Your task to perform on an android device: change alarm snooze length Image 0: 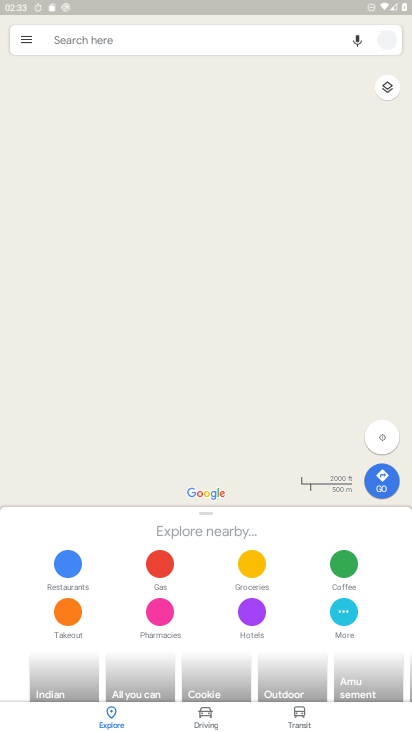
Step 0: press home button
Your task to perform on an android device: change alarm snooze length Image 1: 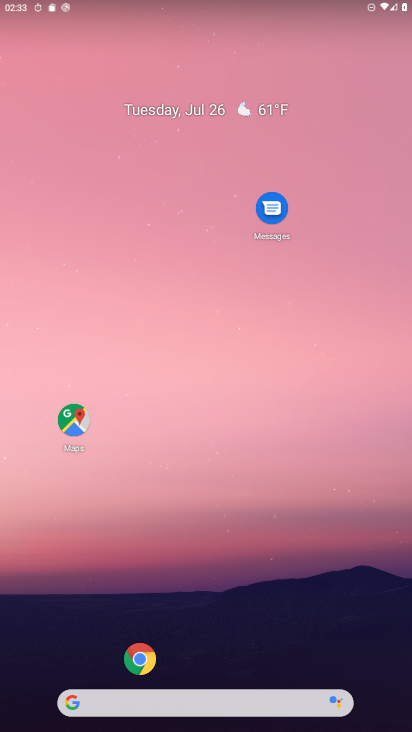
Step 1: drag from (70, 707) to (215, 88)
Your task to perform on an android device: change alarm snooze length Image 2: 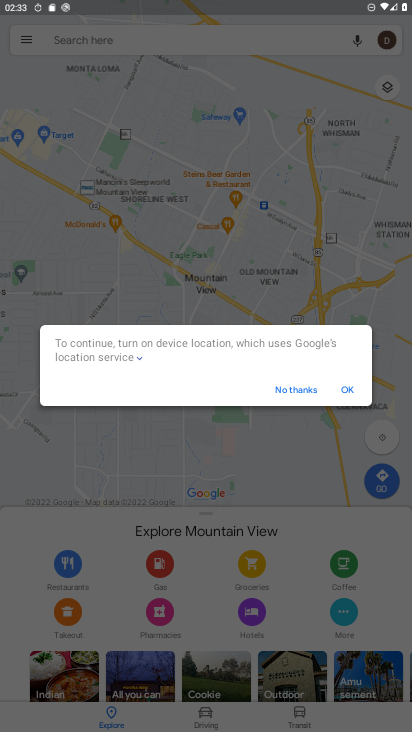
Step 2: press home button
Your task to perform on an android device: change alarm snooze length Image 3: 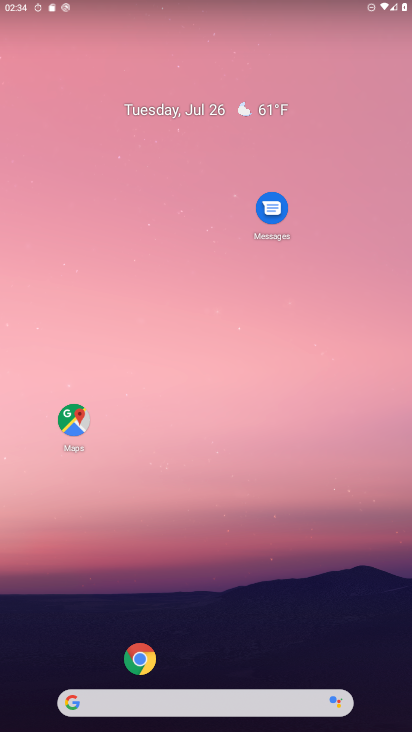
Step 3: drag from (79, 545) to (254, 126)
Your task to perform on an android device: change alarm snooze length Image 4: 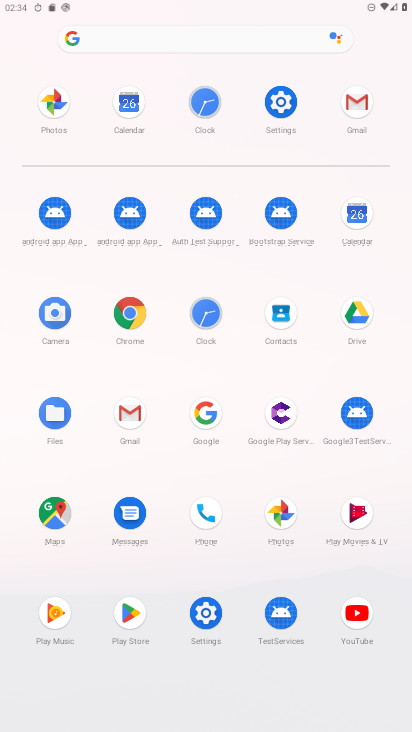
Step 4: click (193, 334)
Your task to perform on an android device: change alarm snooze length Image 5: 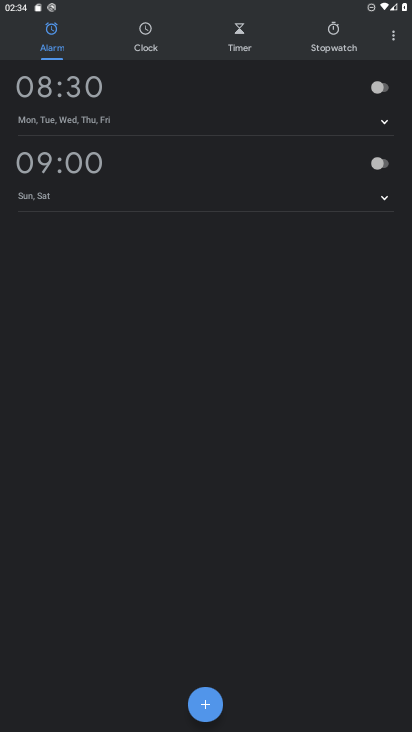
Step 5: click (396, 33)
Your task to perform on an android device: change alarm snooze length Image 6: 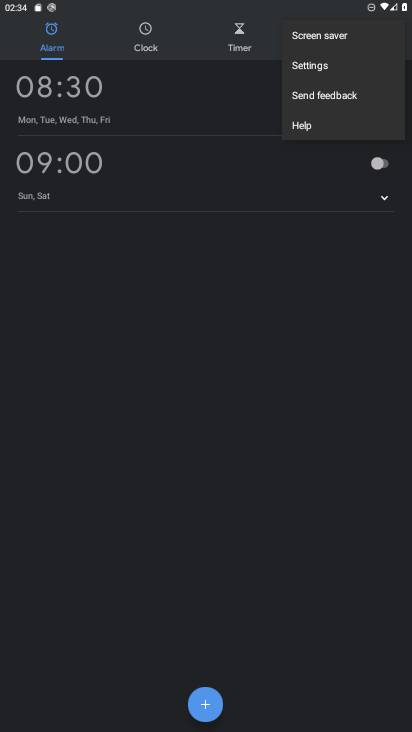
Step 6: click (310, 76)
Your task to perform on an android device: change alarm snooze length Image 7: 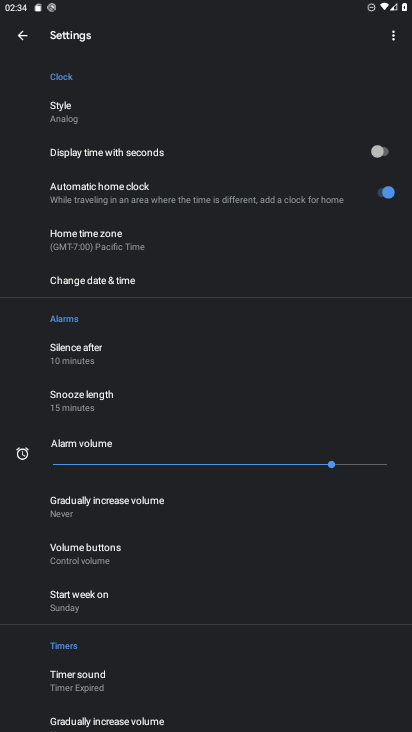
Step 7: click (116, 395)
Your task to perform on an android device: change alarm snooze length Image 8: 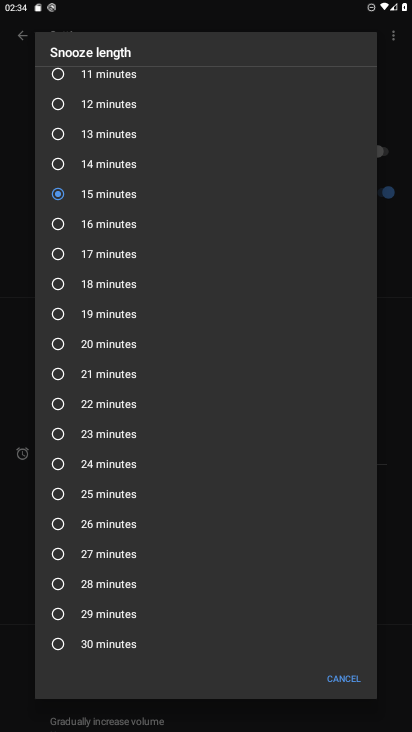
Step 8: click (61, 164)
Your task to perform on an android device: change alarm snooze length Image 9: 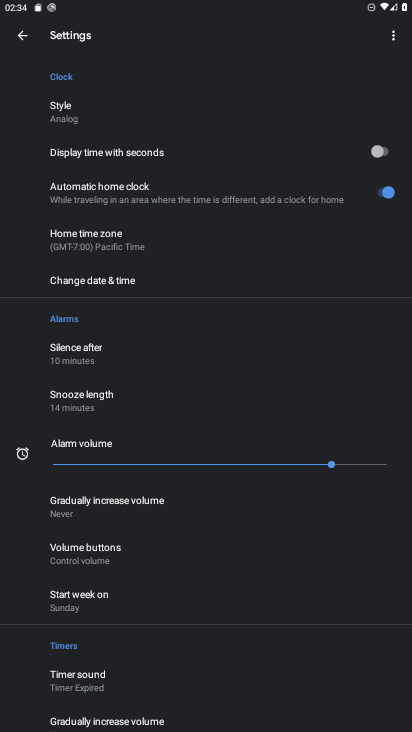
Step 9: task complete